Your task to perform on an android device: turn on translation in the chrome app Image 0: 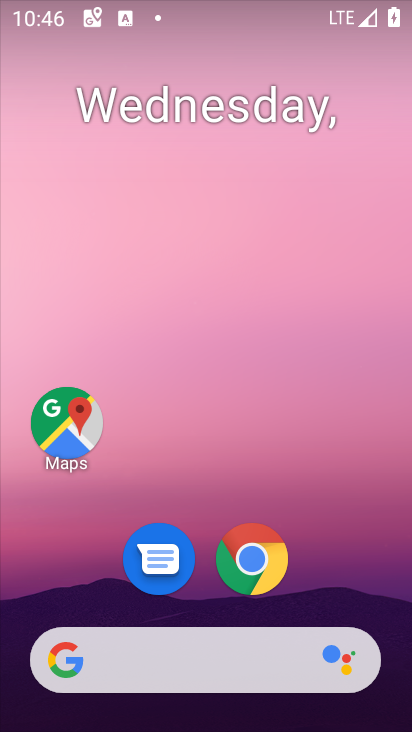
Step 0: click (264, 571)
Your task to perform on an android device: turn on translation in the chrome app Image 1: 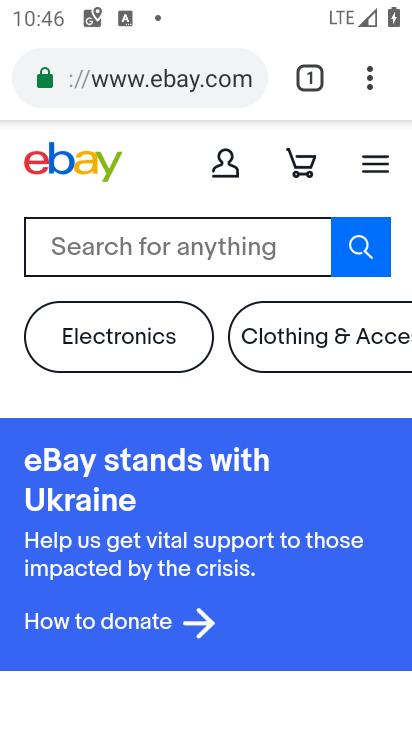
Step 1: click (374, 84)
Your task to perform on an android device: turn on translation in the chrome app Image 2: 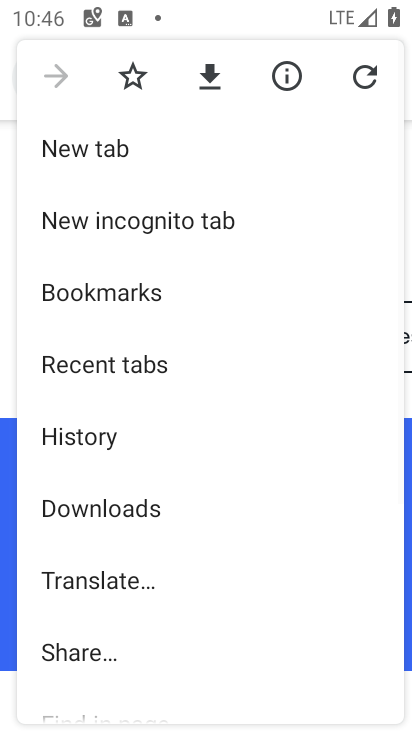
Step 2: drag from (205, 528) to (198, 272)
Your task to perform on an android device: turn on translation in the chrome app Image 3: 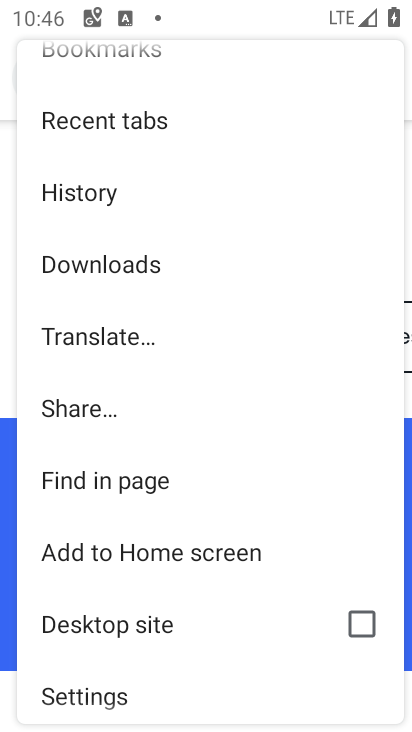
Step 3: drag from (122, 639) to (129, 376)
Your task to perform on an android device: turn on translation in the chrome app Image 4: 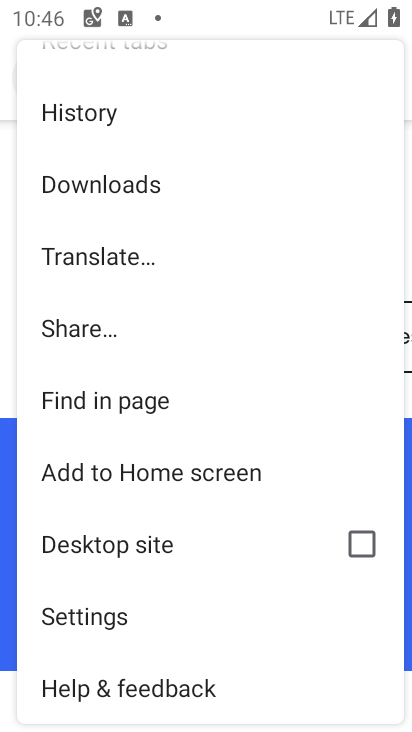
Step 4: click (136, 246)
Your task to perform on an android device: turn on translation in the chrome app Image 5: 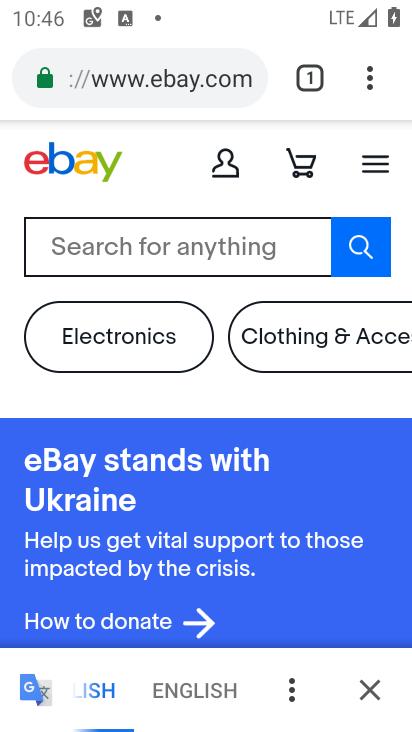
Step 5: click (292, 689)
Your task to perform on an android device: turn on translation in the chrome app Image 6: 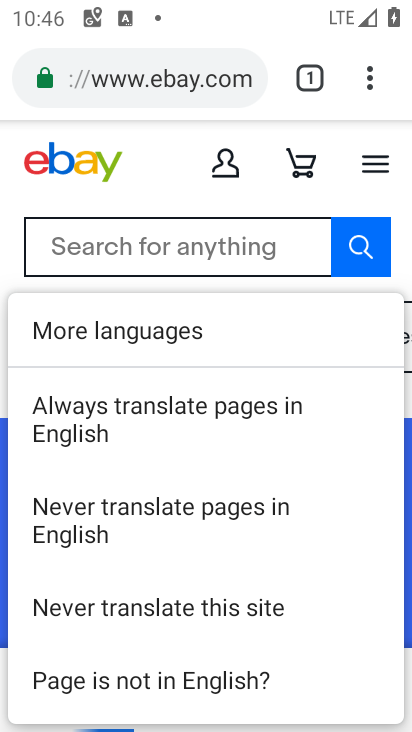
Step 6: click (200, 408)
Your task to perform on an android device: turn on translation in the chrome app Image 7: 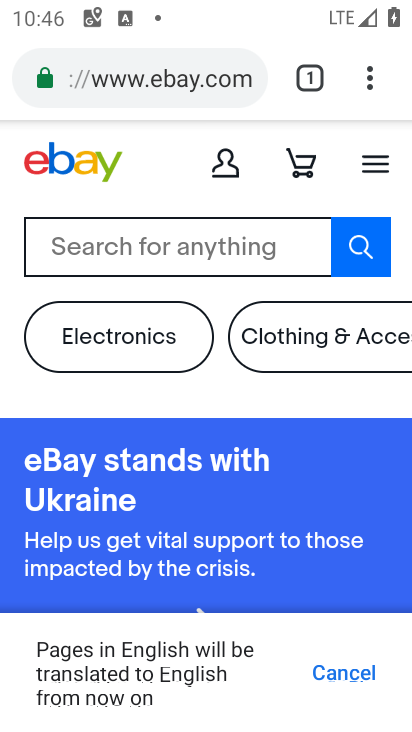
Step 7: task complete